Your task to perform on an android device: read, delete, or share a saved page in the chrome app Image 0: 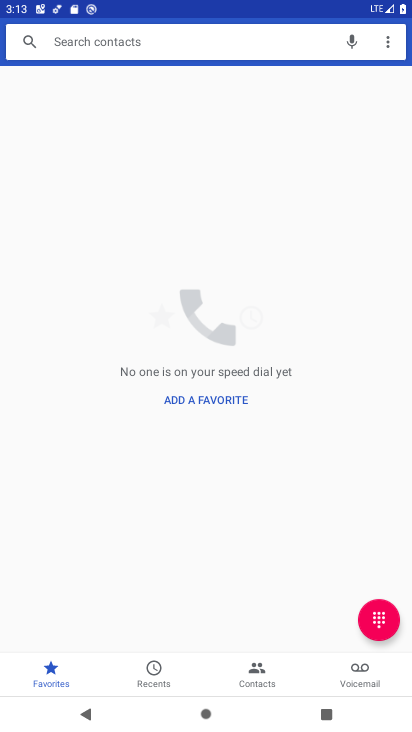
Step 0: click (135, 613)
Your task to perform on an android device: read, delete, or share a saved page in the chrome app Image 1: 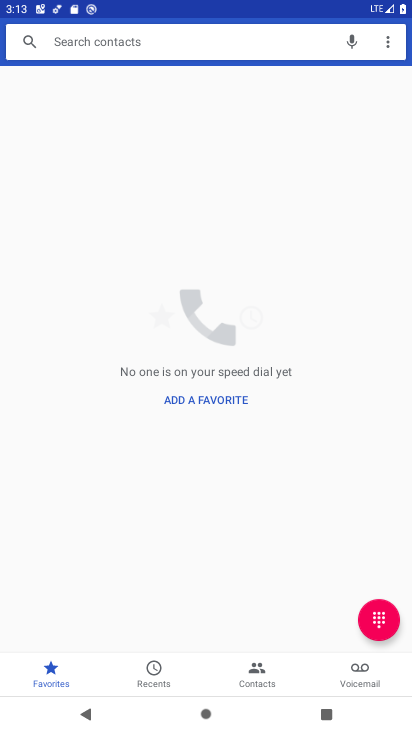
Step 1: press home button
Your task to perform on an android device: read, delete, or share a saved page in the chrome app Image 2: 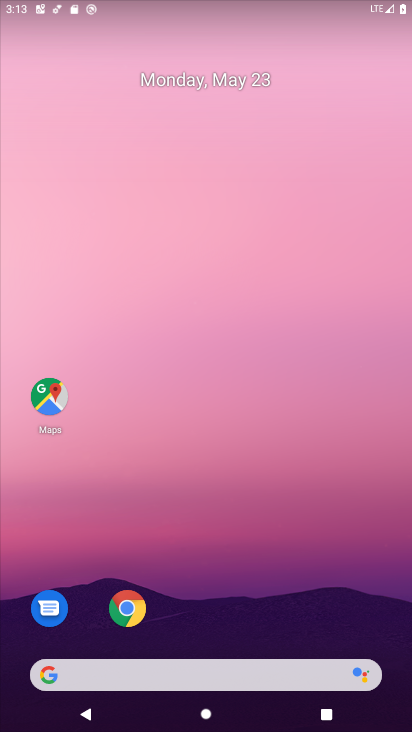
Step 2: click (133, 617)
Your task to perform on an android device: read, delete, or share a saved page in the chrome app Image 3: 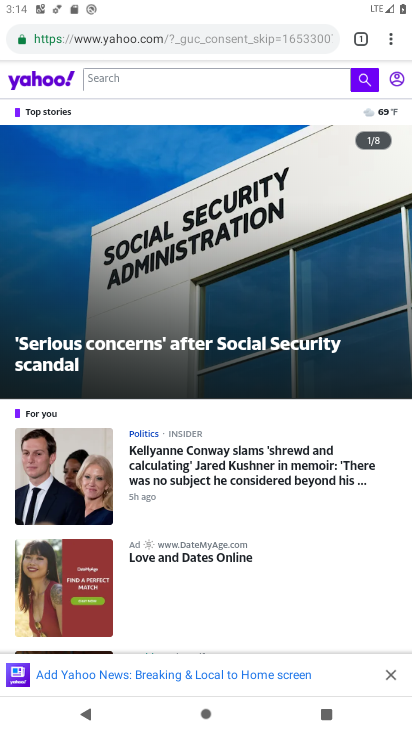
Step 3: click (390, 52)
Your task to perform on an android device: read, delete, or share a saved page in the chrome app Image 4: 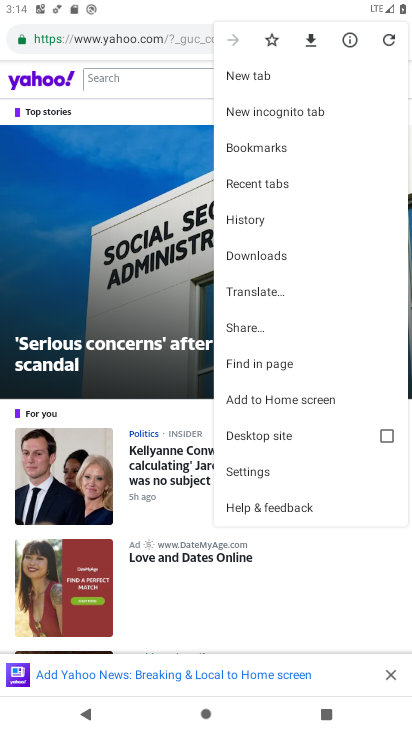
Step 4: click (280, 249)
Your task to perform on an android device: read, delete, or share a saved page in the chrome app Image 5: 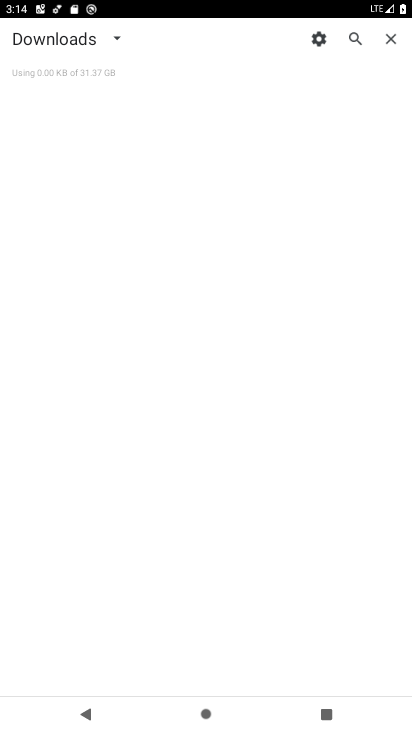
Step 5: click (106, 48)
Your task to perform on an android device: read, delete, or share a saved page in the chrome app Image 6: 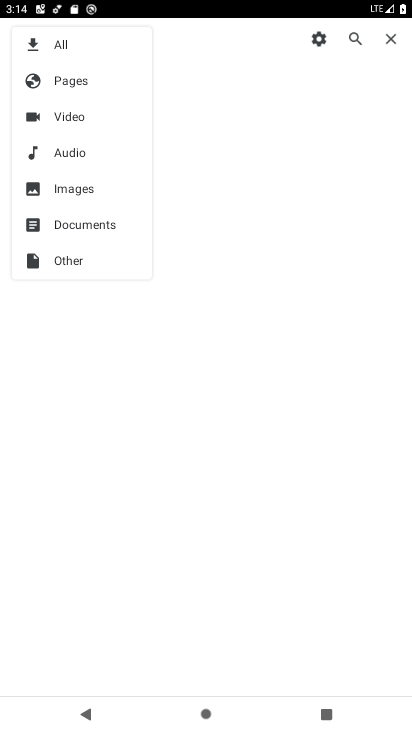
Step 6: click (92, 83)
Your task to perform on an android device: read, delete, or share a saved page in the chrome app Image 7: 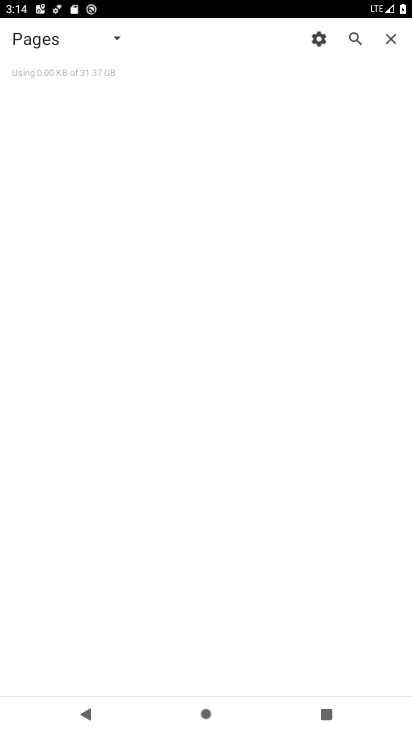
Step 7: task complete